Your task to perform on an android device: Go to Google Image 0: 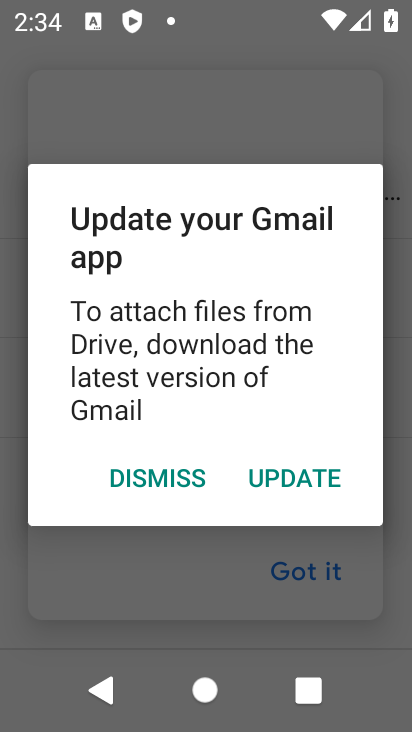
Step 0: press home button
Your task to perform on an android device: Go to Google Image 1: 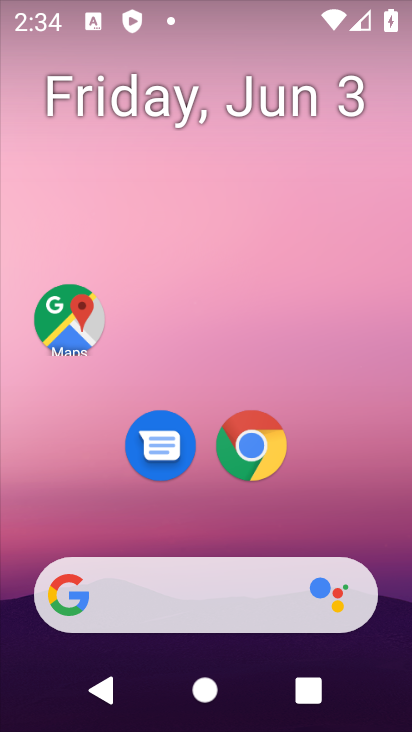
Step 1: click (220, 606)
Your task to perform on an android device: Go to Google Image 2: 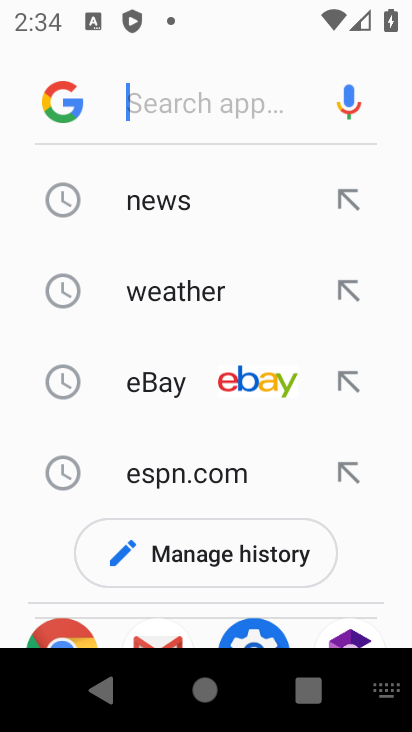
Step 2: task complete